Your task to perform on an android device: Open battery settings Image 0: 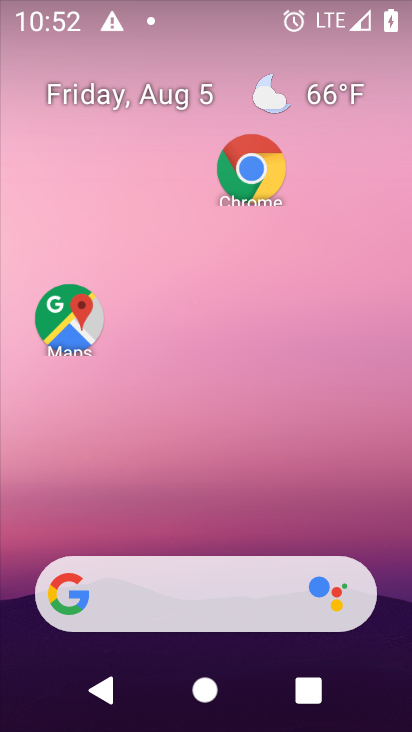
Step 0: drag from (212, 516) to (206, 149)
Your task to perform on an android device: Open battery settings Image 1: 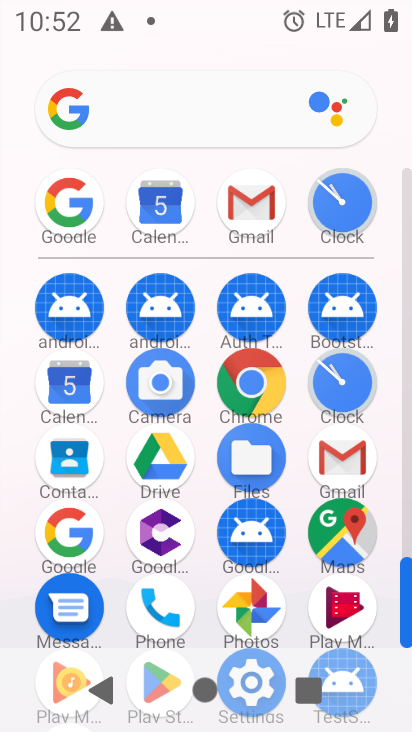
Step 1: drag from (189, 539) to (189, 226)
Your task to perform on an android device: Open battery settings Image 2: 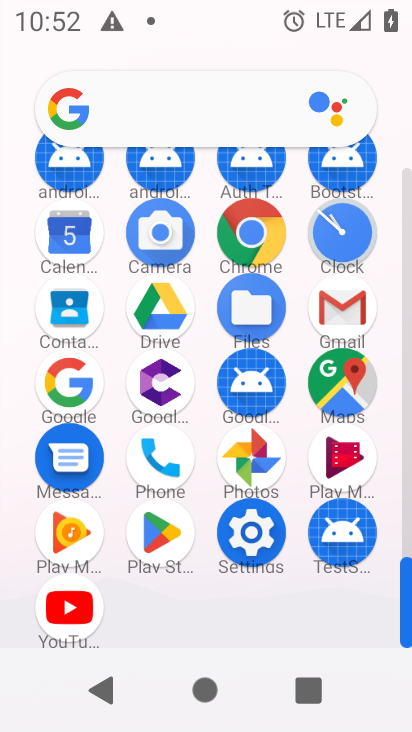
Step 2: click (252, 549)
Your task to perform on an android device: Open battery settings Image 3: 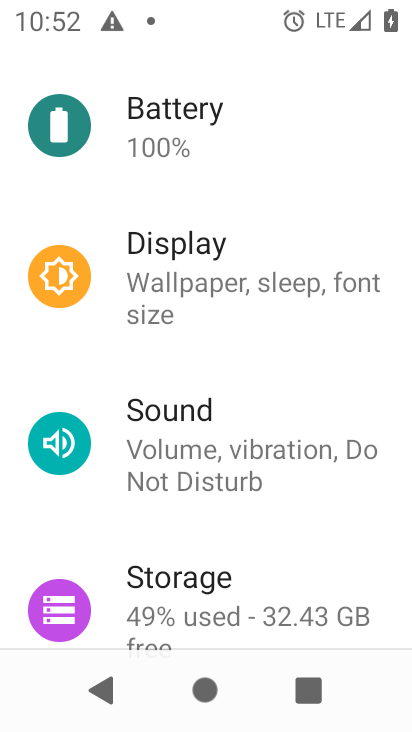
Step 3: click (231, 168)
Your task to perform on an android device: Open battery settings Image 4: 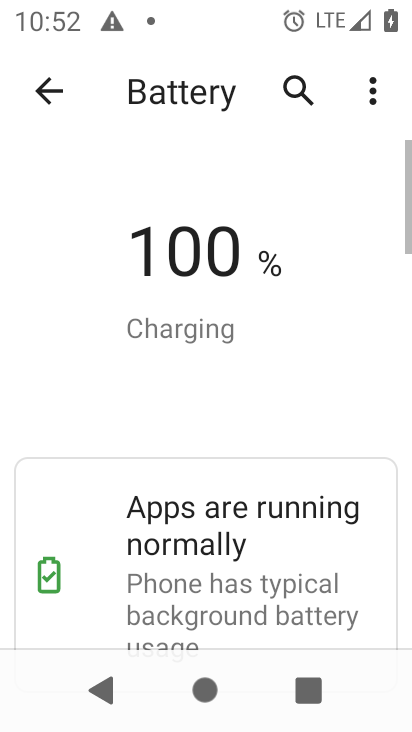
Step 4: task complete